Your task to perform on an android device: turn off translation in the chrome app Image 0: 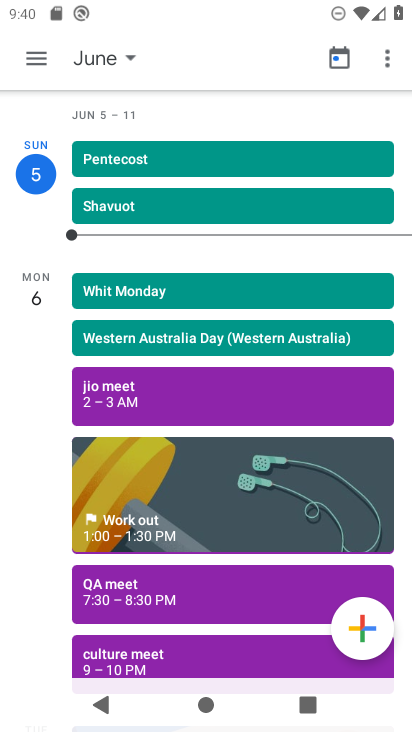
Step 0: press home button
Your task to perform on an android device: turn off translation in the chrome app Image 1: 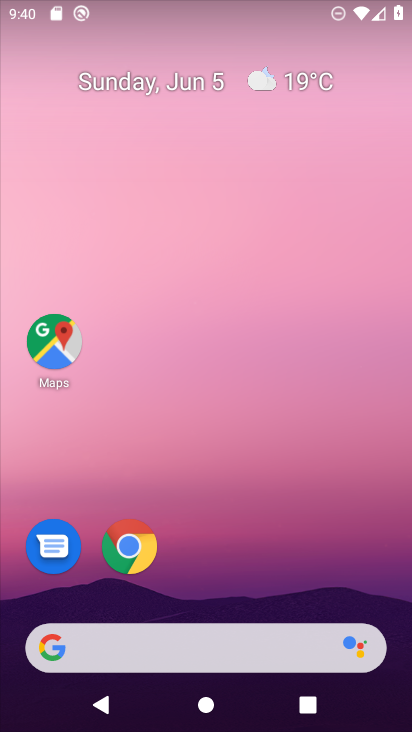
Step 1: click (120, 558)
Your task to perform on an android device: turn off translation in the chrome app Image 2: 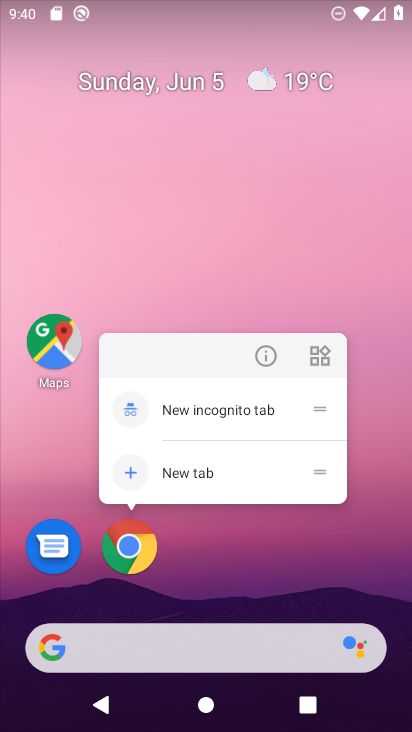
Step 2: click (120, 558)
Your task to perform on an android device: turn off translation in the chrome app Image 3: 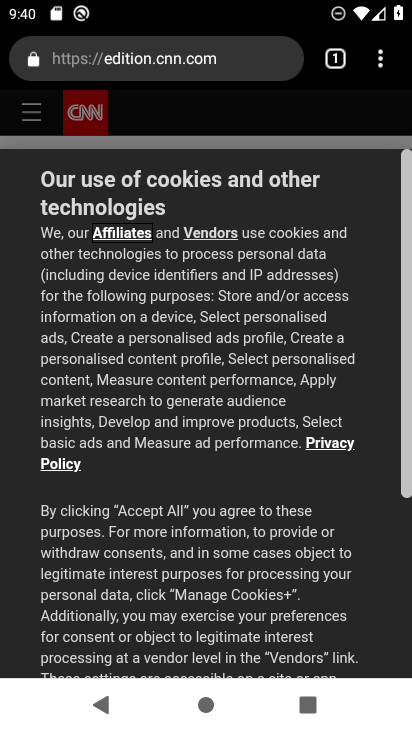
Step 3: click (375, 70)
Your task to perform on an android device: turn off translation in the chrome app Image 4: 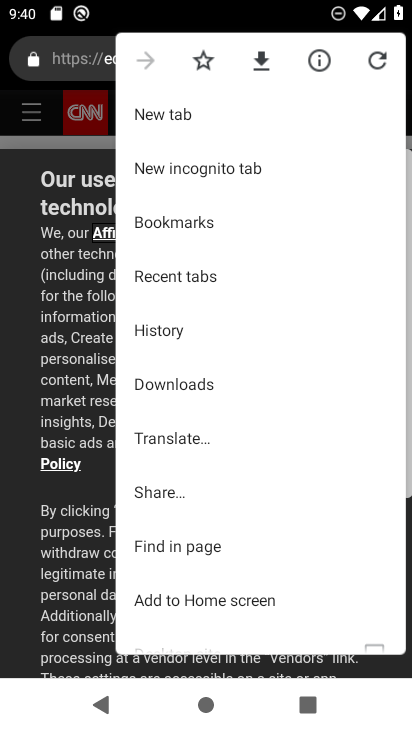
Step 4: drag from (266, 563) to (255, 132)
Your task to perform on an android device: turn off translation in the chrome app Image 5: 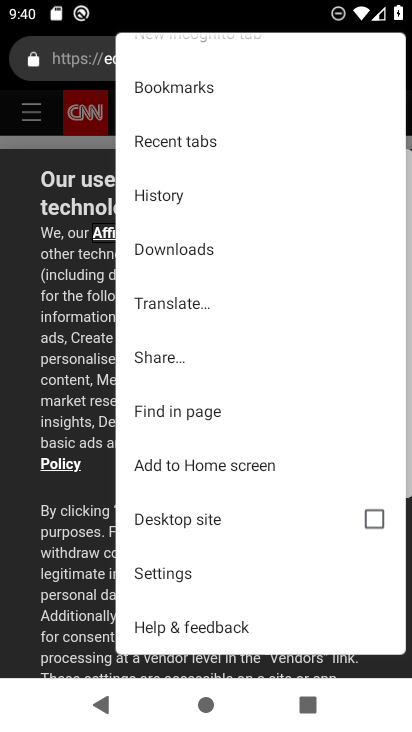
Step 5: click (149, 554)
Your task to perform on an android device: turn off translation in the chrome app Image 6: 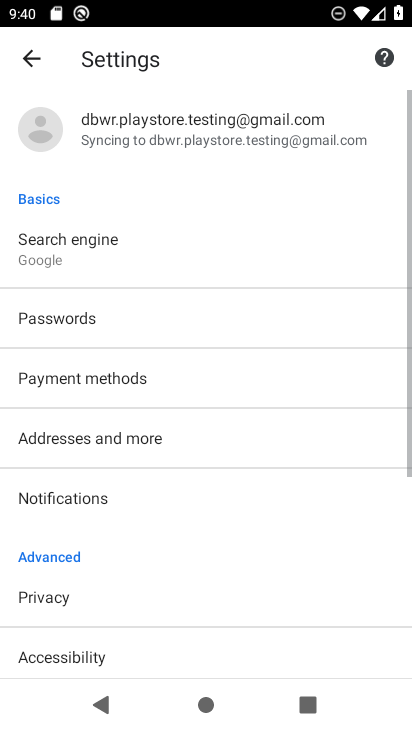
Step 6: drag from (149, 554) to (179, 66)
Your task to perform on an android device: turn off translation in the chrome app Image 7: 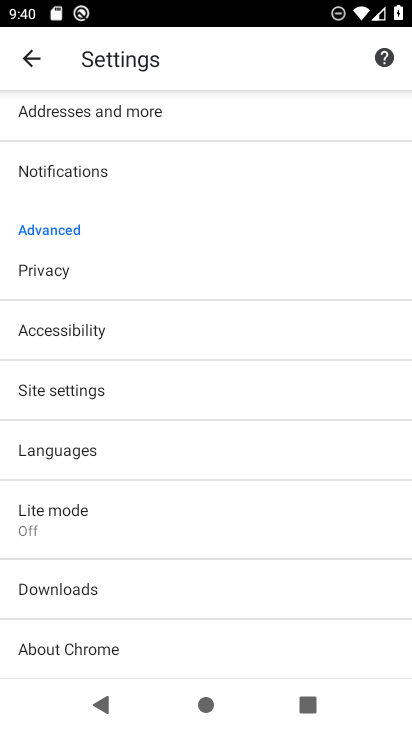
Step 7: click (128, 469)
Your task to perform on an android device: turn off translation in the chrome app Image 8: 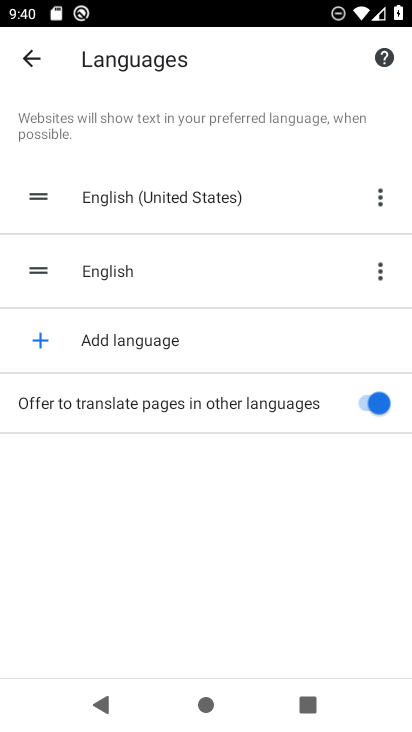
Step 8: click (360, 395)
Your task to perform on an android device: turn off translation in the chrome app Image 9: 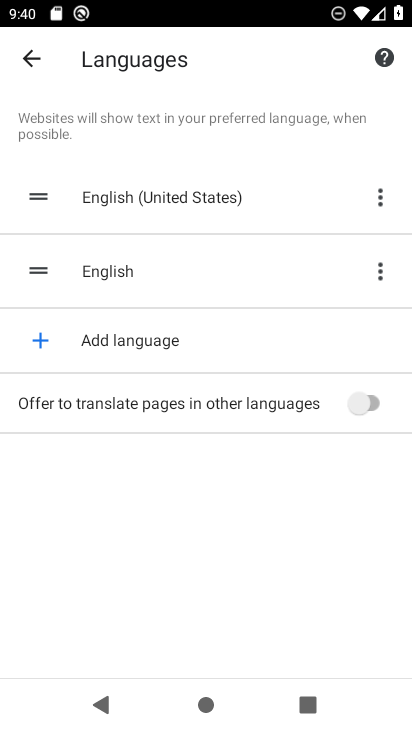
Step 9: task complete